Your task to perform on an android device: turn off priority inbox in the gmail app Image 0: 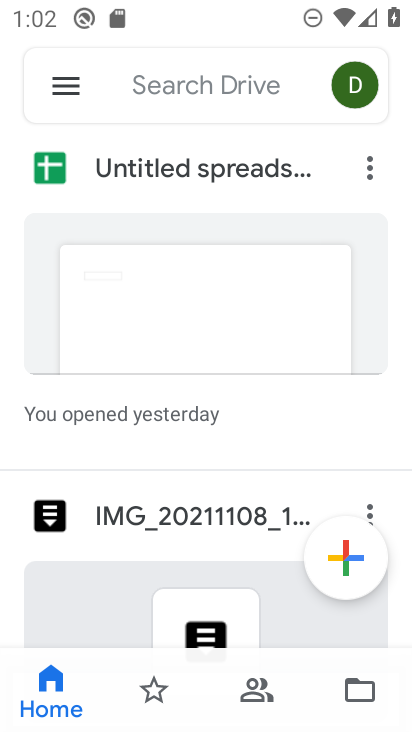
Step 0: press home button
Your task to perform on an android device: turn off priority inbox in the gmail app Image 1: 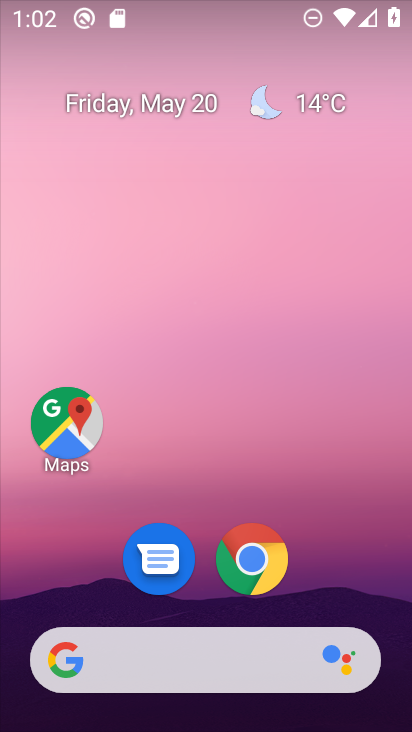
Step 1: drag from (338, 586) to (312, 170)
Your task to perform on an android device: turn off priority inbox in the gmail app Image 2: 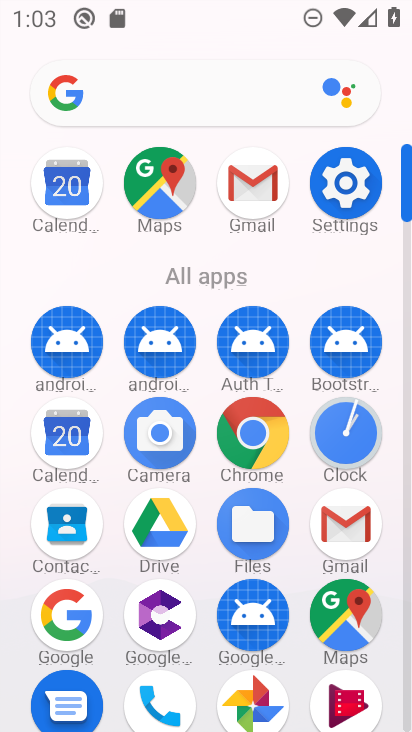
Step 2: click (251, 221)
Your task to perform on an android device: turn off priority inbox in the gmail app Image 3: 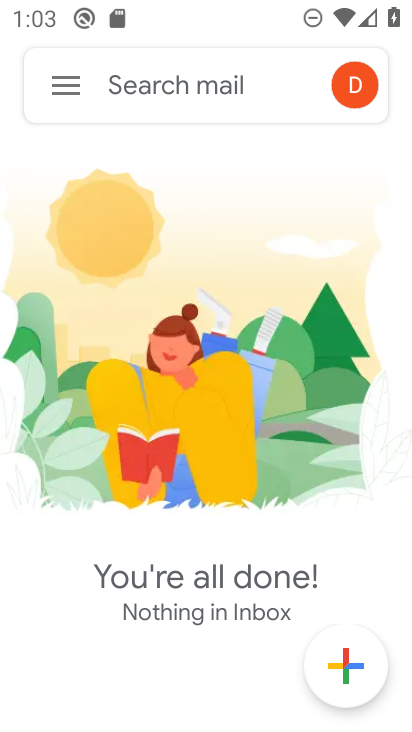
Step 3: click (62, 67)
Your task to perform on an android device: turn off priority inbox in the gmail app Image 4: 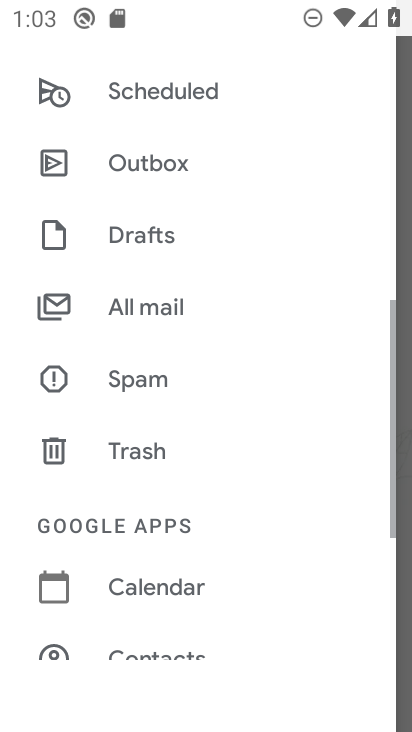
Step 4: drag from (167, 667) to (217, 403)
Your task to perform on an android device: turn off priority inbox in the gmail app Image 5: 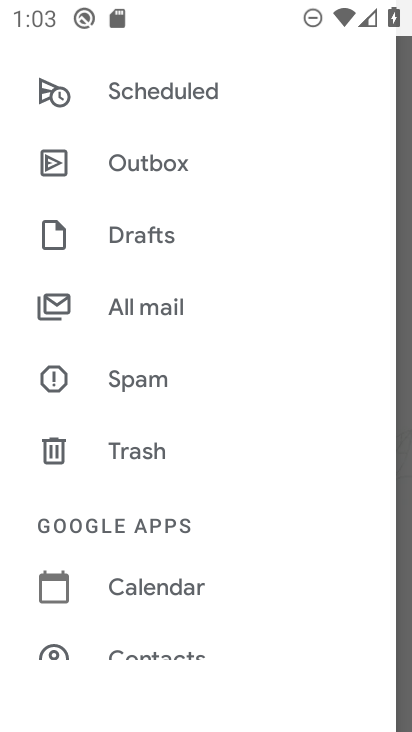
Step 5: drag from (235, 617) to (211, 125)
Your task to perform on an android device: turn off priority inbox in the gmail app Image 6: 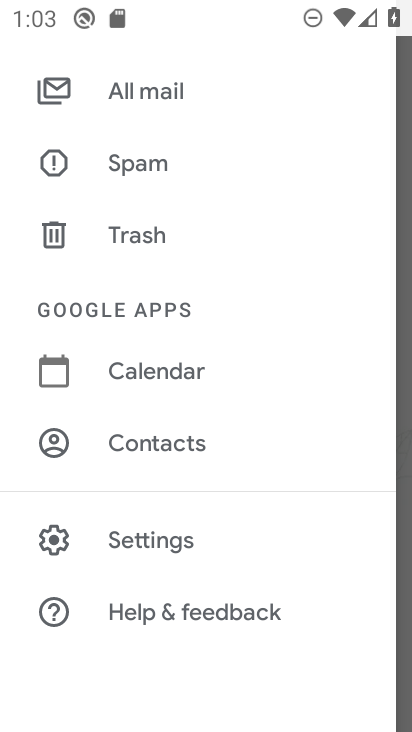
Step 6: click (217, 537)
Your task to perform on an android device: turn off priority inbox in the gmail app Image 7: 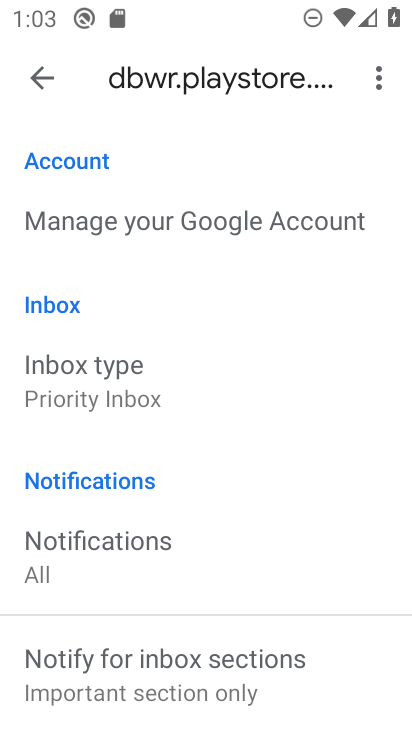
Step 7: drag from (217, 537) to (198, 469)
Your task to perform on an android device: turn off priority inbox in the gmail app Image 8: 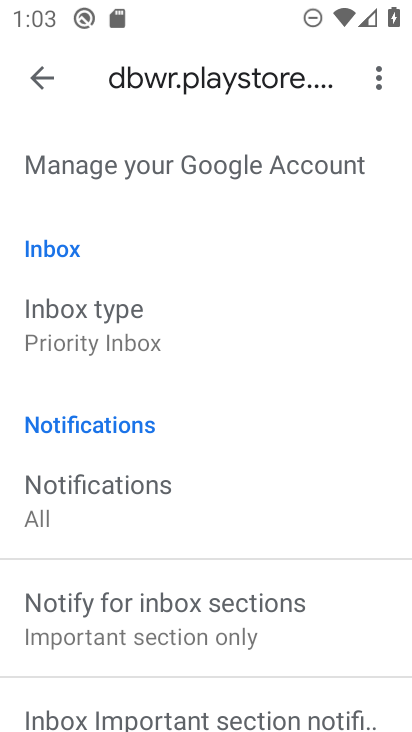
Step 8: click (32, 308)
Your task to perform on an android device: turn off priority inbox in the gmail app Image 9: 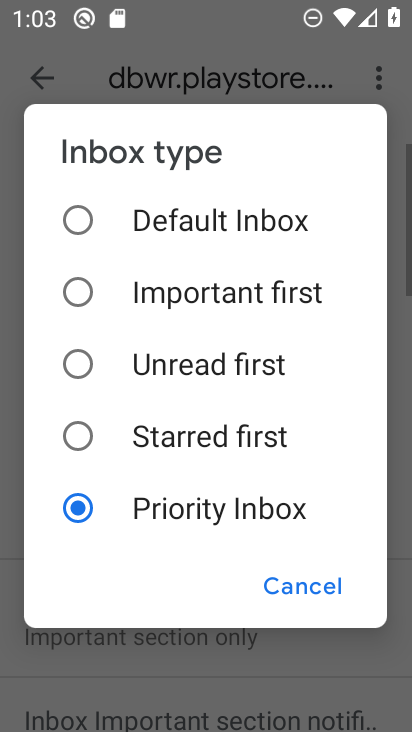
Step 9: click (46, 303)
Your task to perform on an android device: turn off priority inbox in the gmail app Image 10: 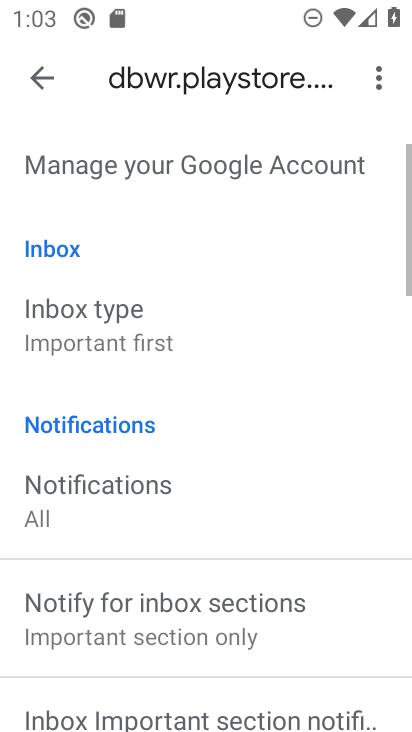
Step 10: task complete